Your task to perform on an android device: Show me the alarms in the clock app Image 0: 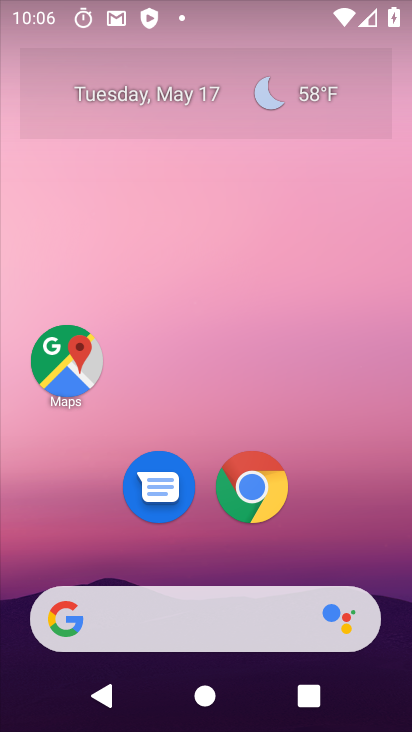
Step 0: drag from (235, 722) to (233, 91)
Your task to perform on an android device: Show me the alarms in the clock app Image 1: 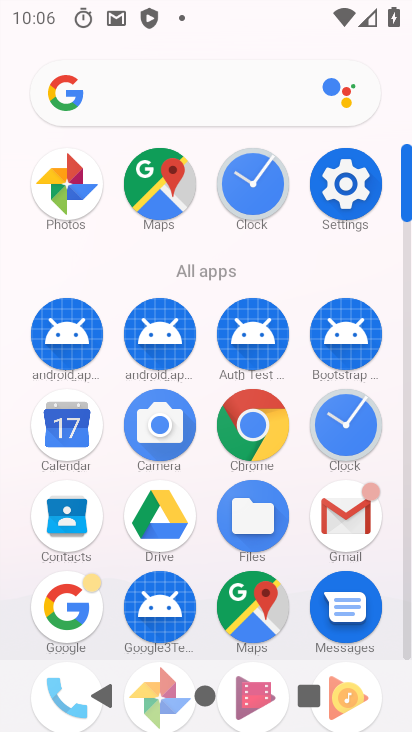
Step 1: click (350, 425)
Your task to perform on an android device: Show me the alarms in the clock app Image 2: 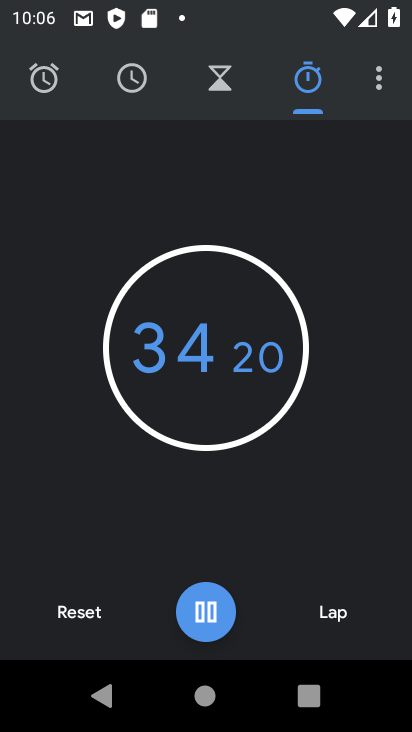
Step 2: click (44, 77)
Your task to perform on an android device: Show me the alarms in the clock app Image 3: 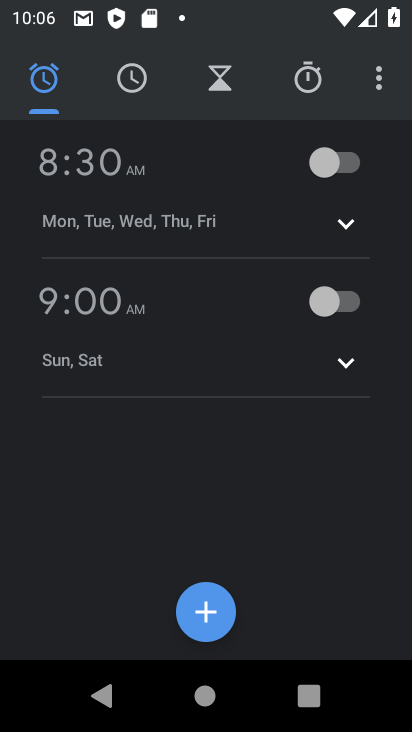
Step 3: task complete